Your task to perform on an android device: check google app version Image 0: 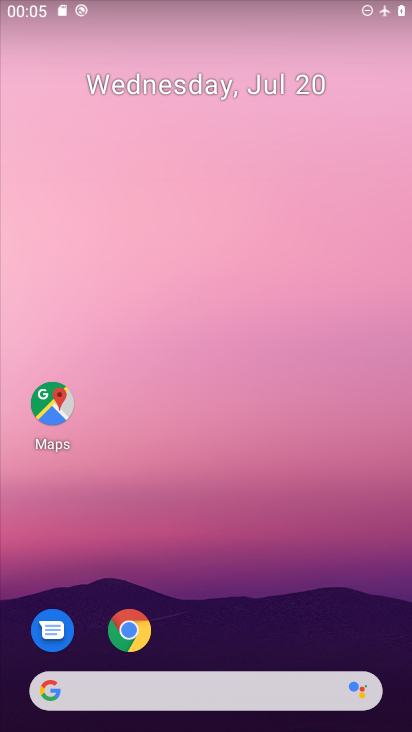
Step 0: drag from (214, 633) to (215, 268)
Your task to perform on an android device: check google app version Image 1: 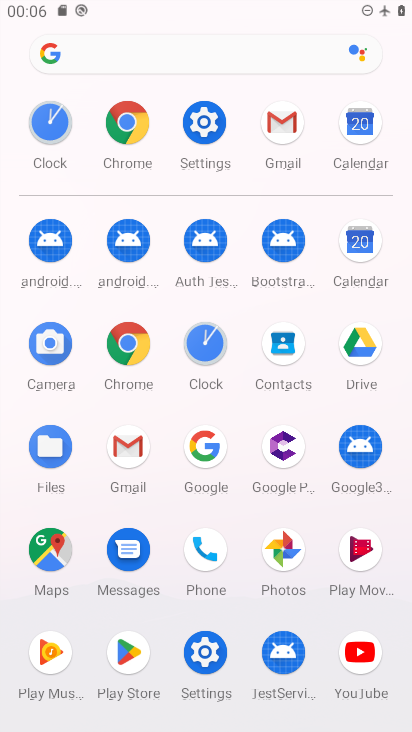
Step 1: click (196, 436)
Your task to perform on an android device: check google app version Image 2: 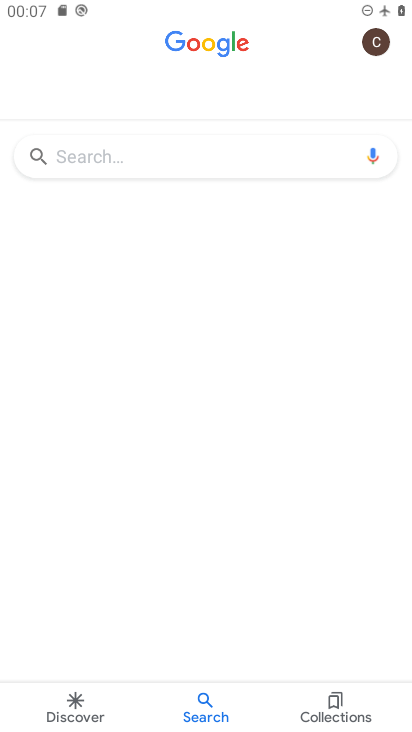
Step 2: click (374, 52)
Your task to perform on an android device: check google app version Image 3: 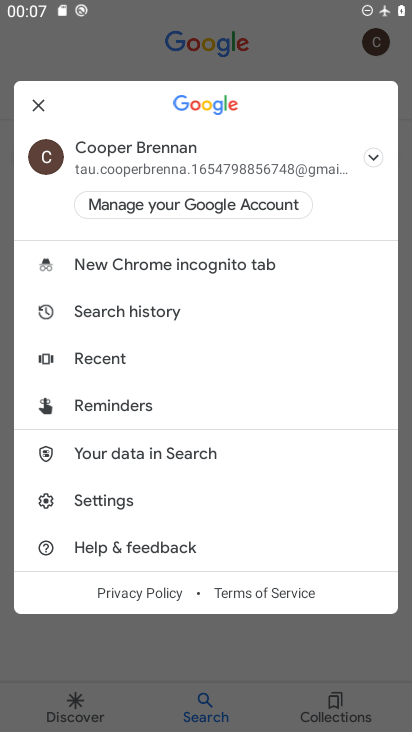
Step 3: click (119, 501)
Your task to perform on an android device: check google app version Image 4: 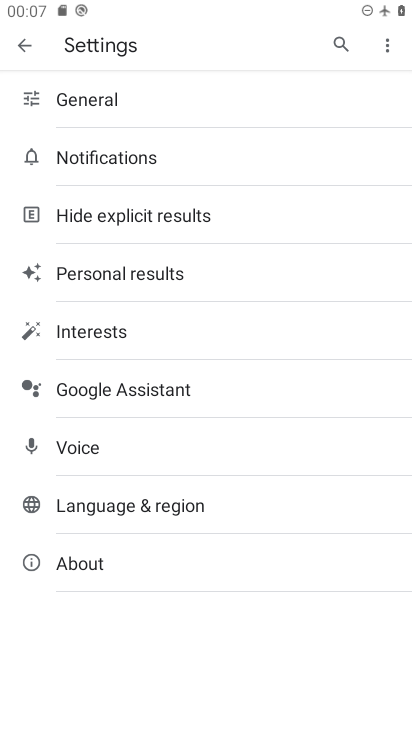
Step 4: click (89, 577)
Your task to perform on an android device: check google app version Image 5: 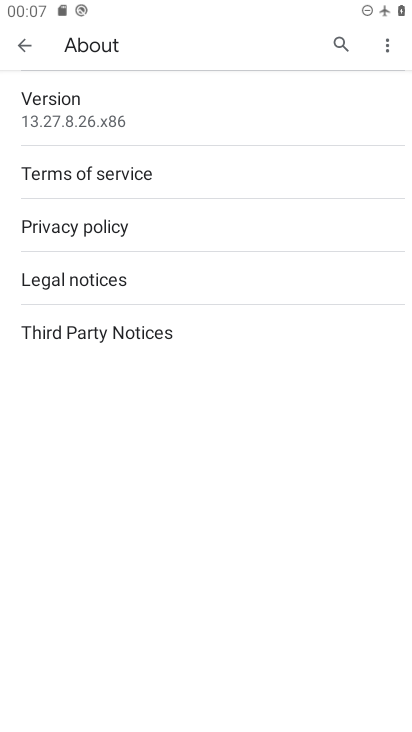
Step 5: click (73, 106)
Your task to perform on an android device: check google app version Image 6: 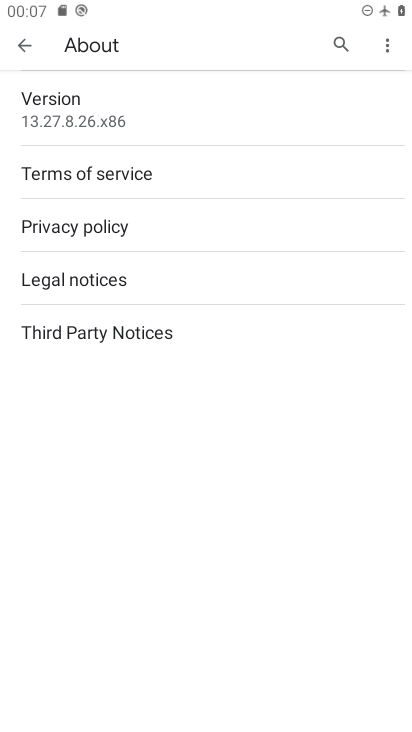
Step 6: click (154, 105)
Your task to perform on an android device: check google app version Image 7: 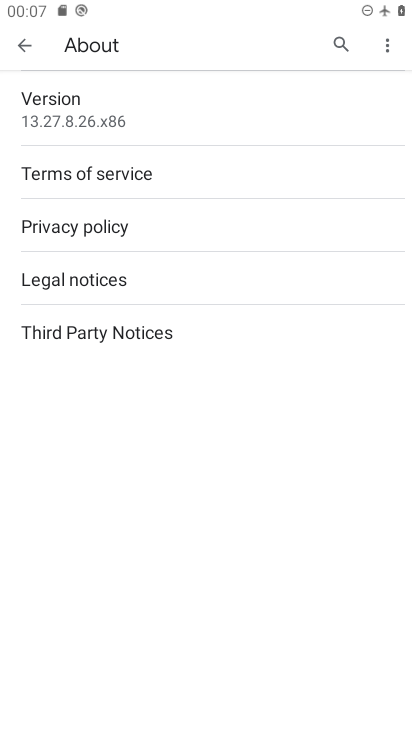
Step 7: click (97, 116)
Your task to perform on an android device: check google app version Image 8: 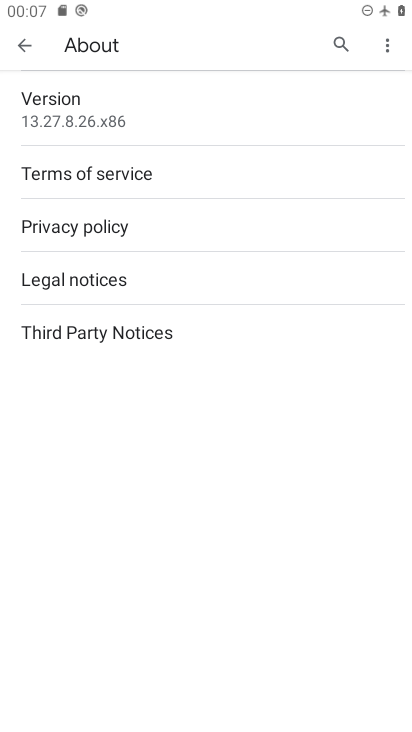
Step 8: task complete